Your task to perform on an android device: toggle location history Image 0: 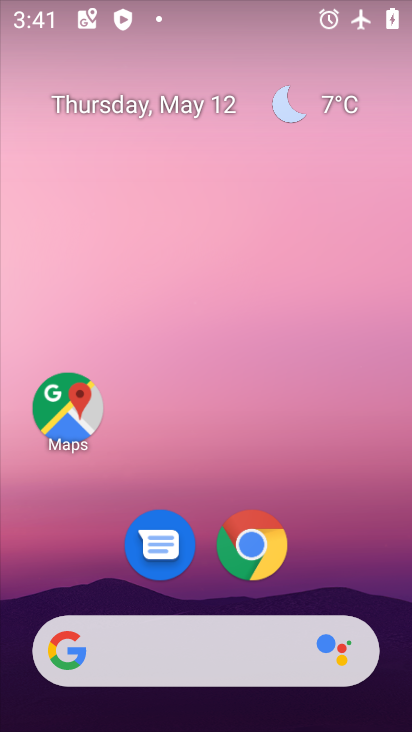
Step 0: click (65, 406)
Your task to perform on an android device: toggle location history Image 1: 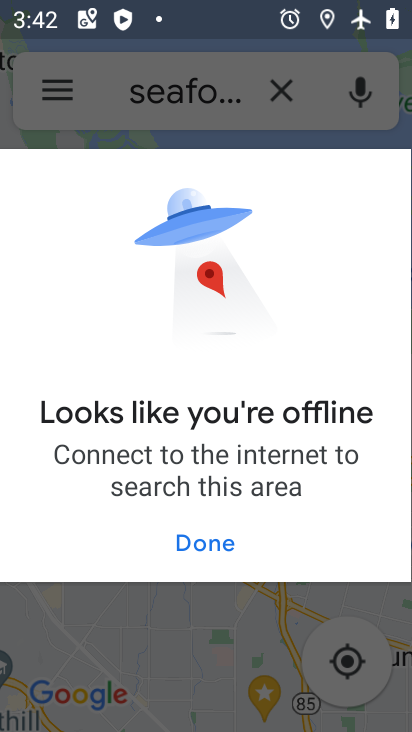
Step 1: click (212, 542)
Your task to perform on an android device: toggle location history Image 2: 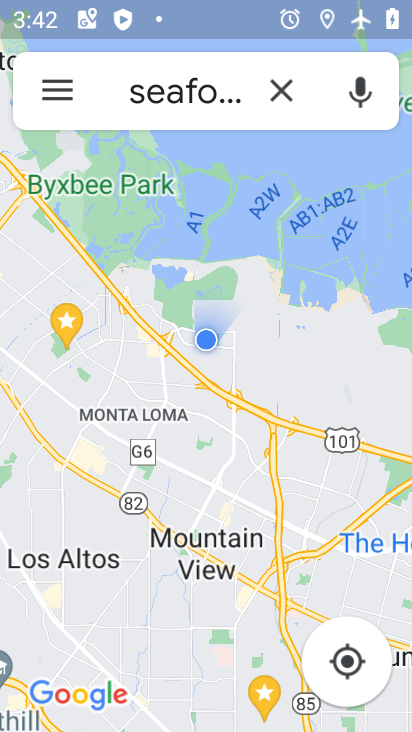
Step 2: click (44, 82)
Your task to perform on an android device: toggle location history Image 3: 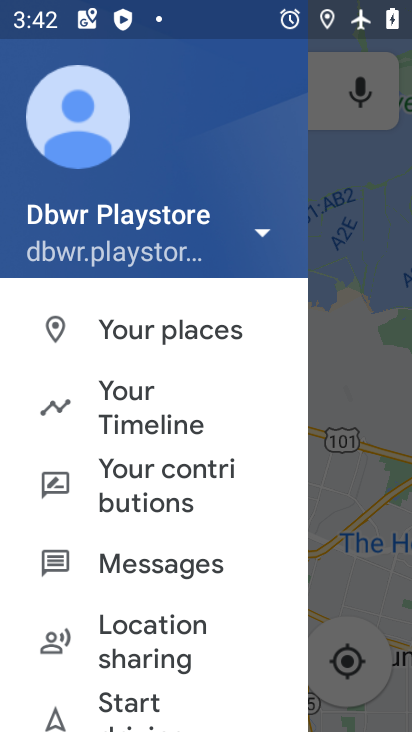
Step 3: drag from (238, 612) to (211, 90)
Your task to perform on an android device: toggle location history Image 4: 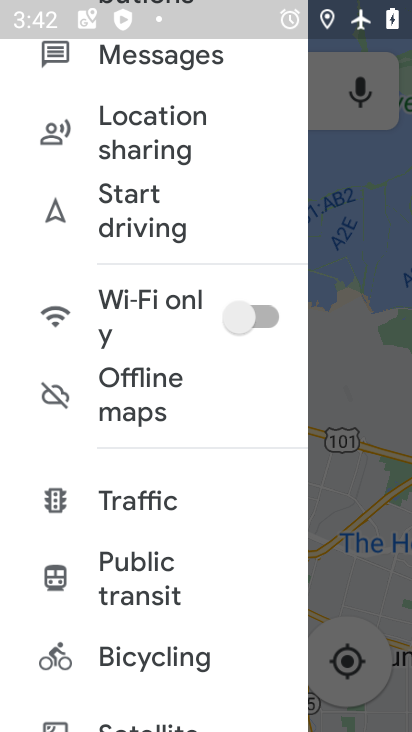
Step 4: drag from (211, 631) to (191, 108)
Your task to perform on an android device: toggle location history Image 5: 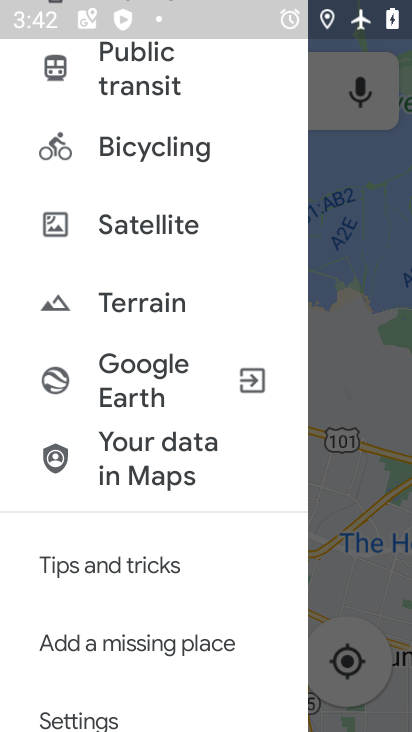
Step 5: drag from (203, 672) to (161, 134)
Your task to perform on an android device: toggle location history Image 6: 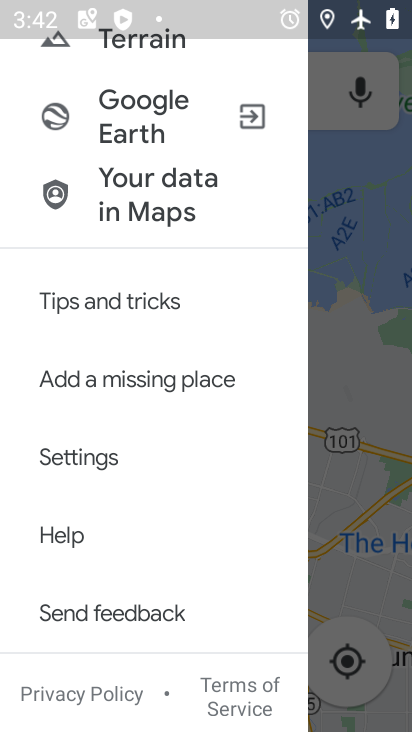
Step 6: click (67, 445)
Your task to perform on an android device: toggle location history Image 7: 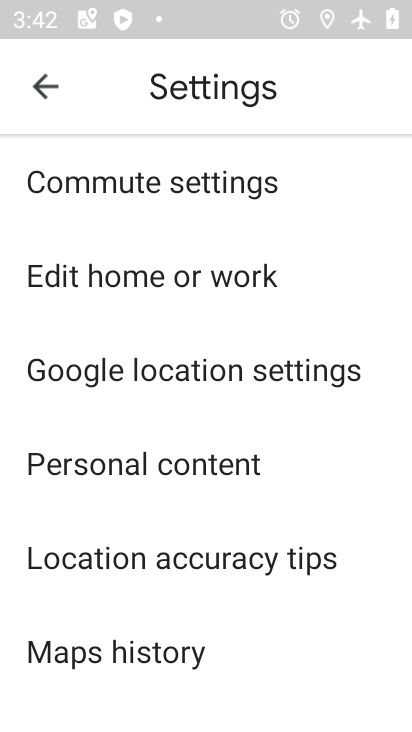
Step 7: click (99, 477)
Your task to perform on an android device: toggle location history Image 8: 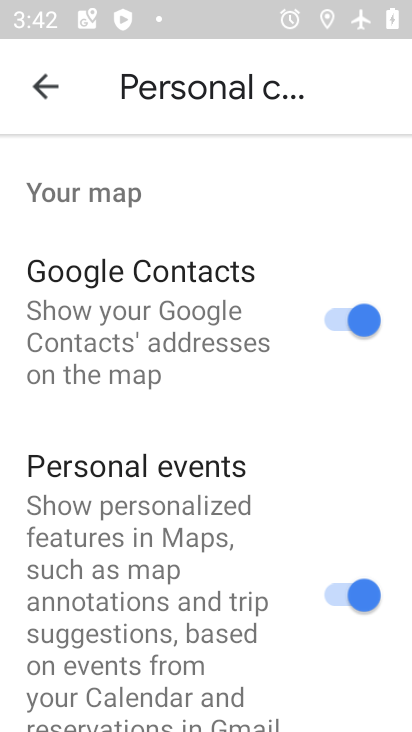
Step 8: drag from (258, 675) to (255, 167)
Your task to perform on an android device: toggle location history Image 9: 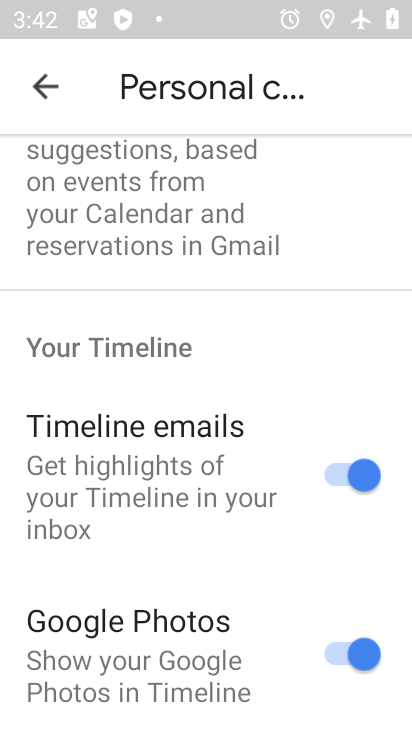
Step 9: drag from (232, 648) to (286, 4)
Your task to perform on an android device: toggle location history Image 10: 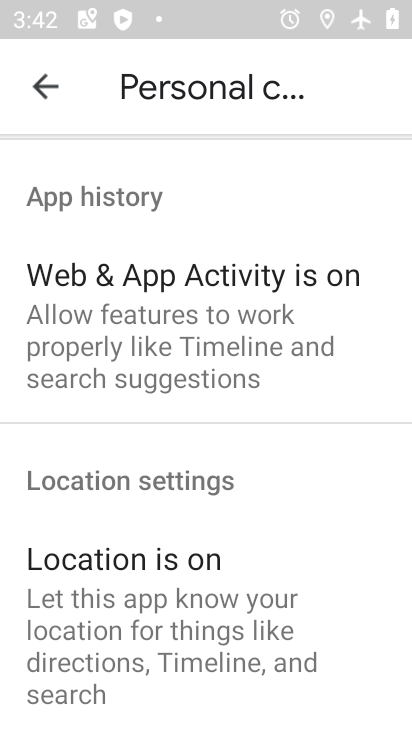
Step 10: drag from (228, 664) to (258, 53)
Your task to perform on an android device: toggle location history Image 11: 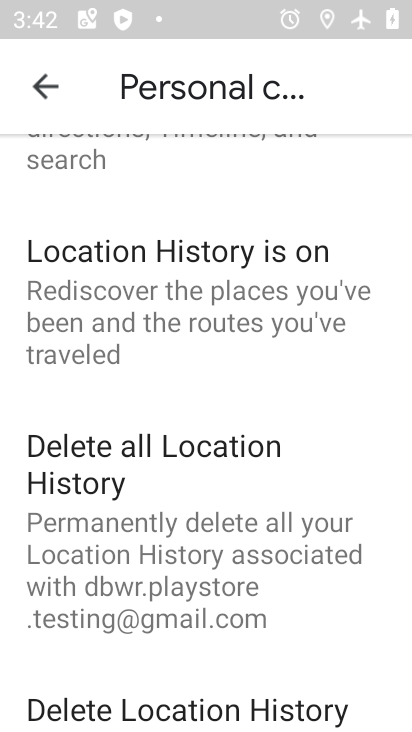
Step 11: click (126, 276)
Your task to perform on an android device: toggle location history Image 12: 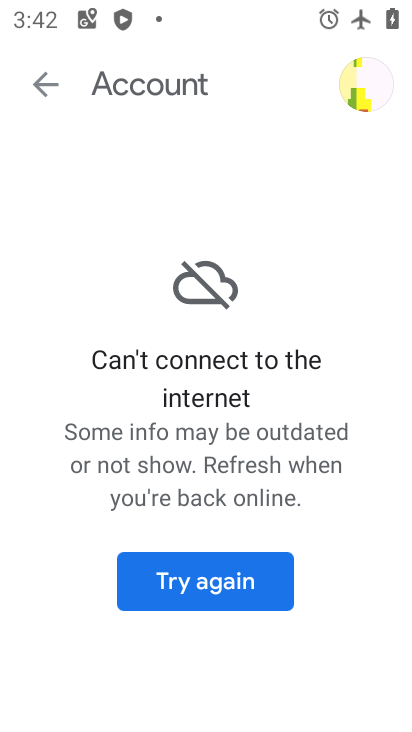
Step 12: task complete